Your task to perform on an android device: turn smart compose on in the gmail app Image 0: 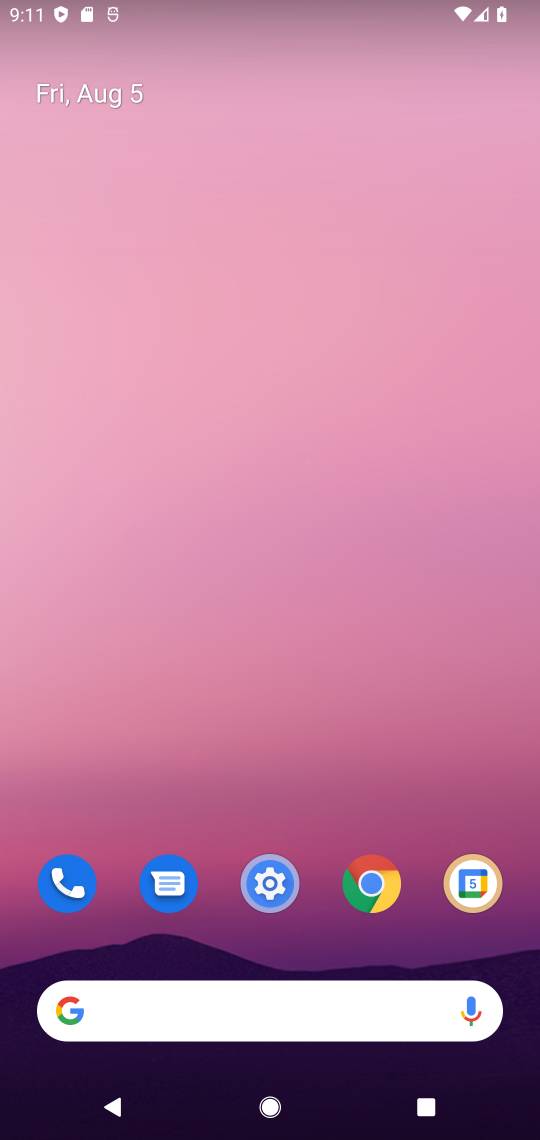
Step 0: drag from (266, 929) to (427, 186)
Your task to perform on an android device: turn smart compose on in the gmail app Image 1: 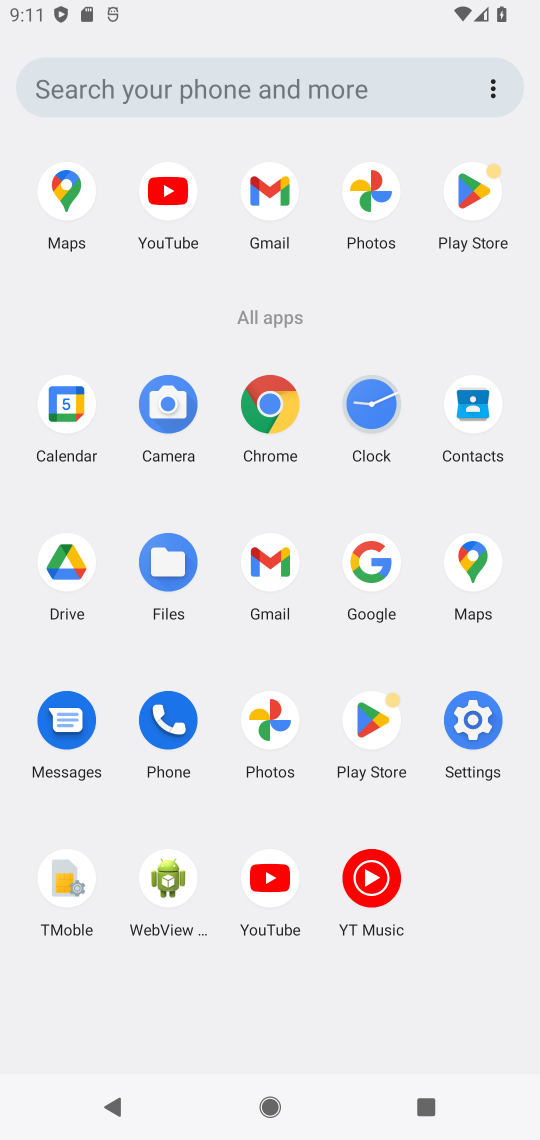
Step 1: click (284, 184)
Your task to perform on an android device: turn smart compose on in the gmail app Image 2: 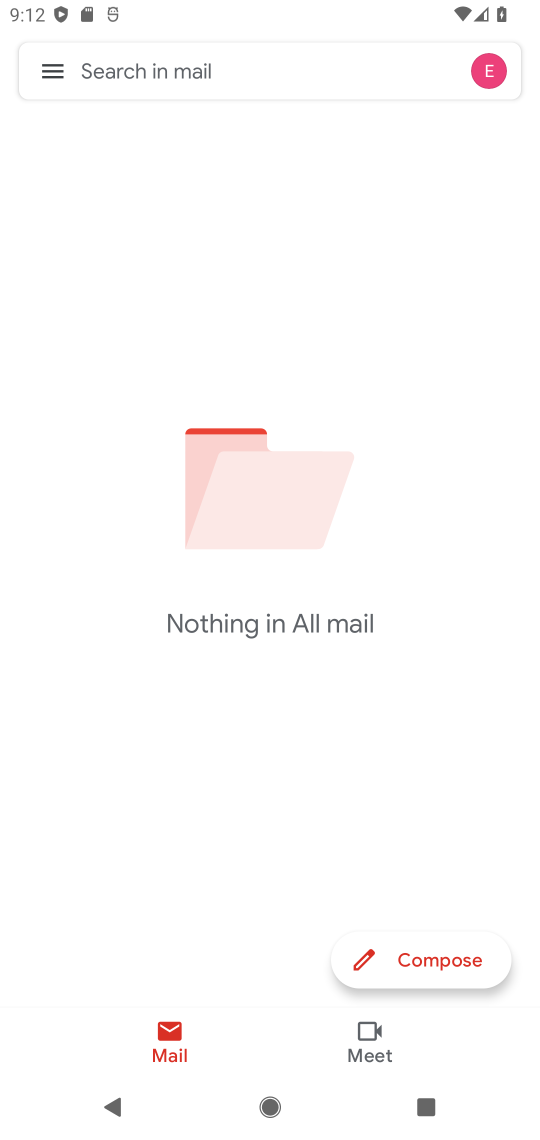
Step 2: click (56, 69)
Your task to perform on an android device: turn smart compose on in the gmail app Image 3: 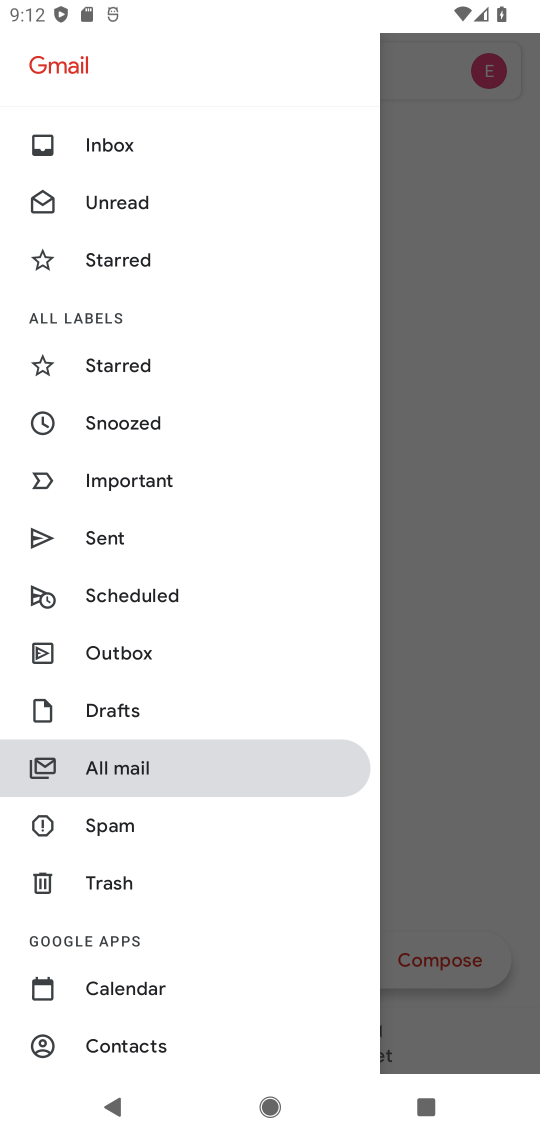
Step 3: drag from (161, 1017) to (334, 78)
Your task to perform on an android device: turn smart compose on in the gmail app Image 4: 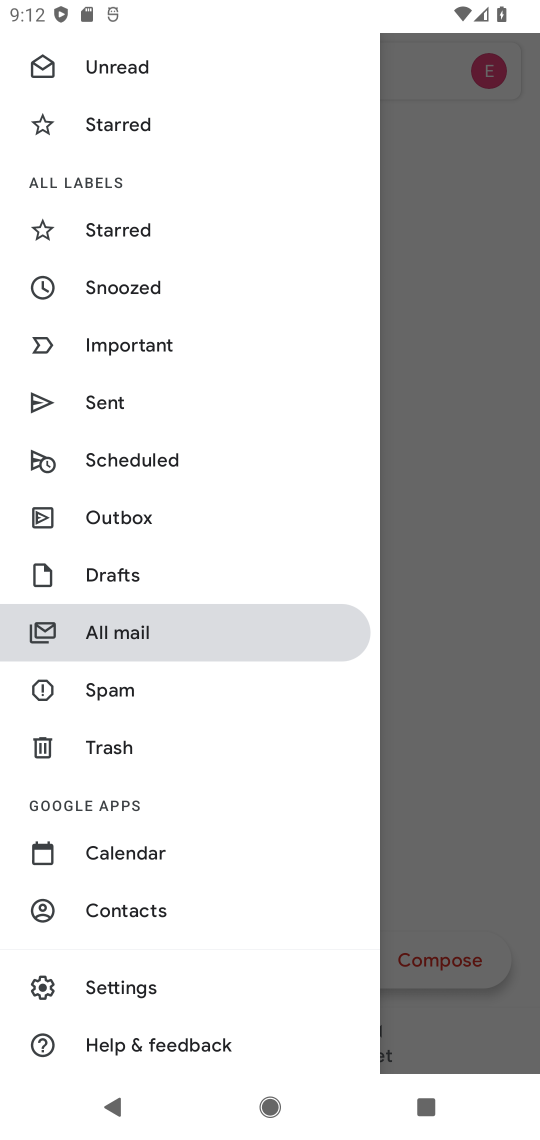
Step 4: click (136, 990)
Your task to perform on an android device: turn smart compose on in the gmail app Image 5: 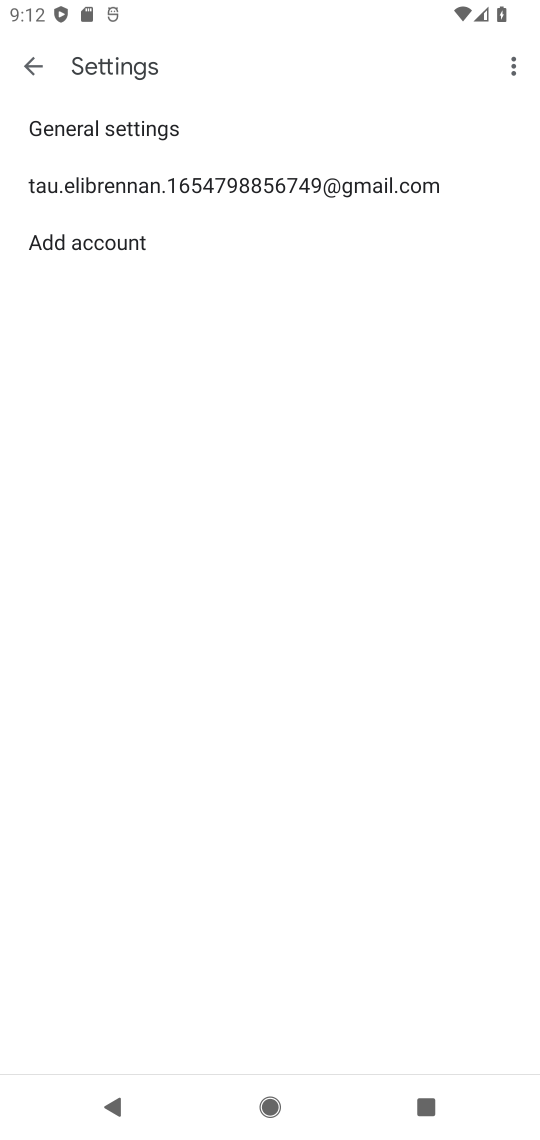
Step 5: click (221, 174)
Your task to perform on an android device: turn smart compose on in the gmail app Image 6: 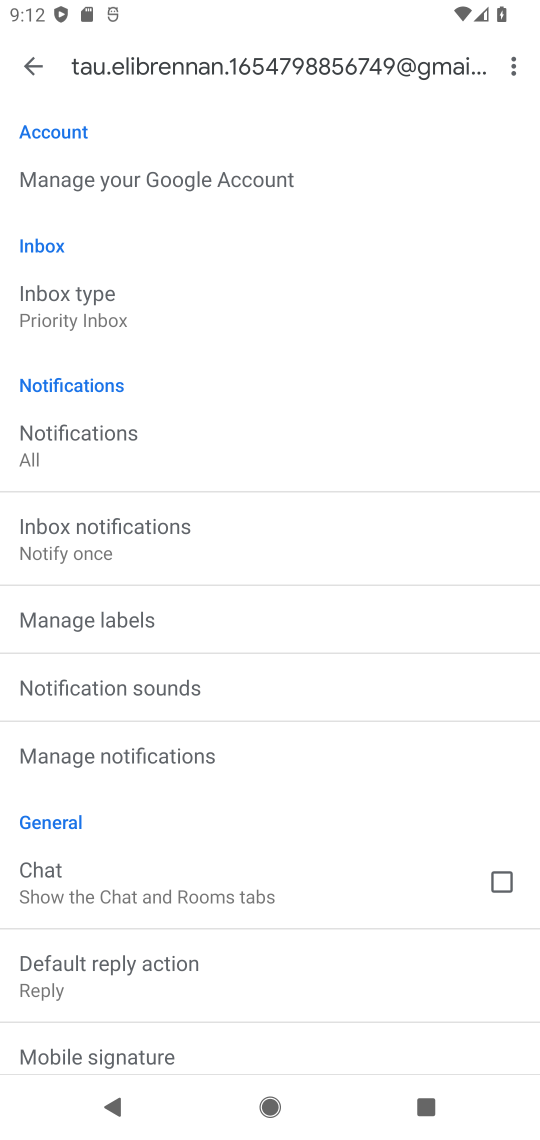
Step 6: task complete